Your task to perform on an android device: Turn on the flashlight Image 0: 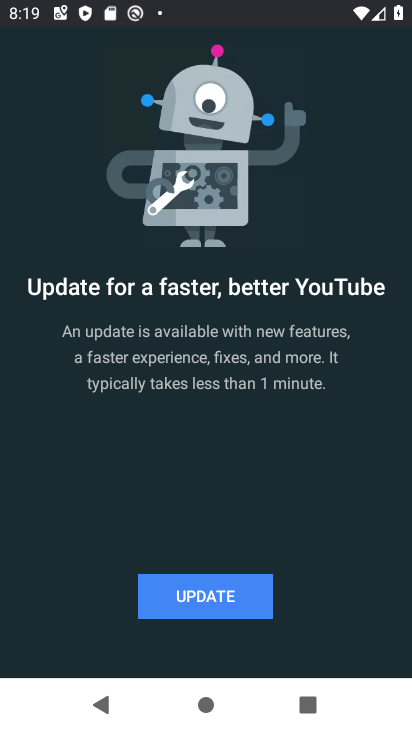
Step 0: press home button
Your task to perform on an android device: Turn on the flashlight Image 1: 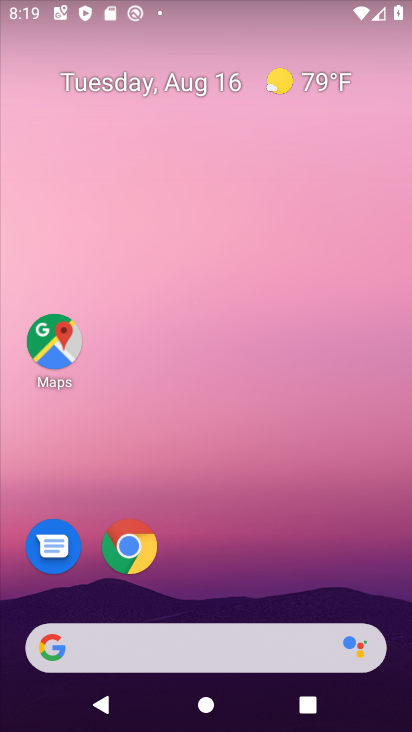
Step 1: drag from (201, 498) to (214, 161)
Your task to perform on an android device: Turn on the flashlight Image 2: 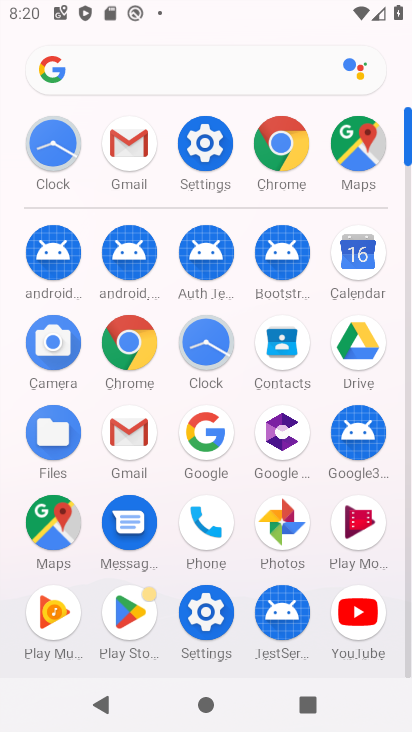
Step 2: click (193, 133)
Your task to perform on an android device: Turn on the flashlight Image 3: 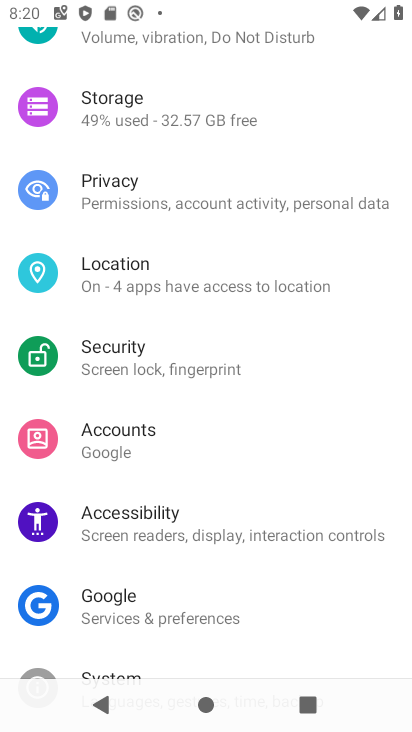
Step 3: task complete